Your task to perform on an android device: allow notifications from all sites in the chrome app Image 0: 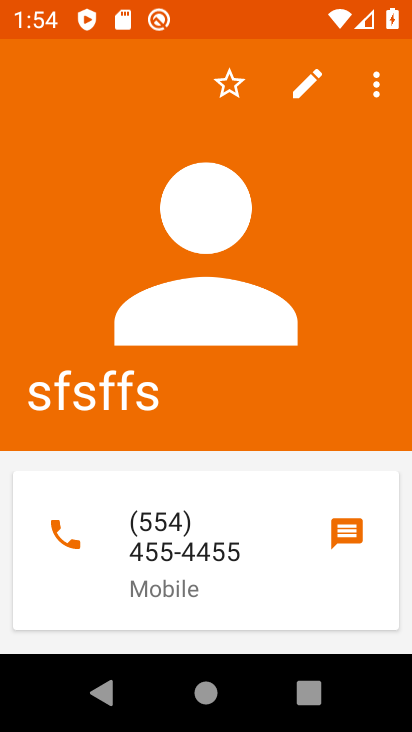
Step 0: press home button
Your task to perform on an android device: allow notifications from all sites in the chrome app Image 1: 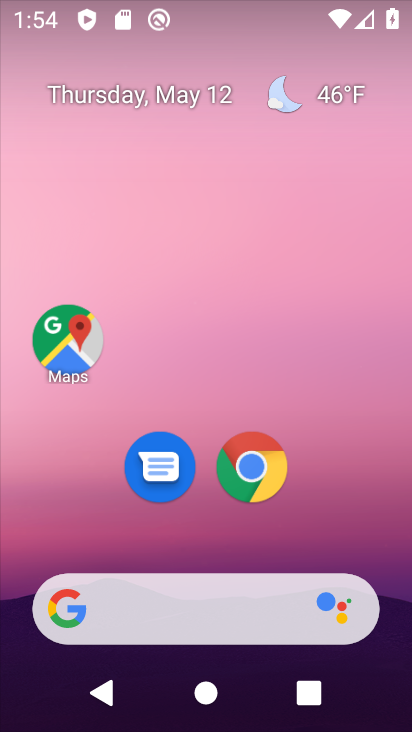
Step 1: click (267, 479)
Your task to perform on an android device: allow notifications from all sites in the chrome app Image 2: 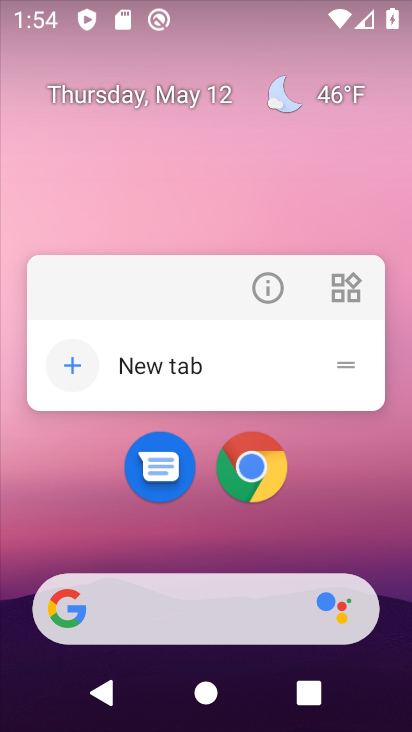
Step 2: click (272, 297)
Your task to perform on an android device: allow notifications from all sites in the chrome app Image 3: 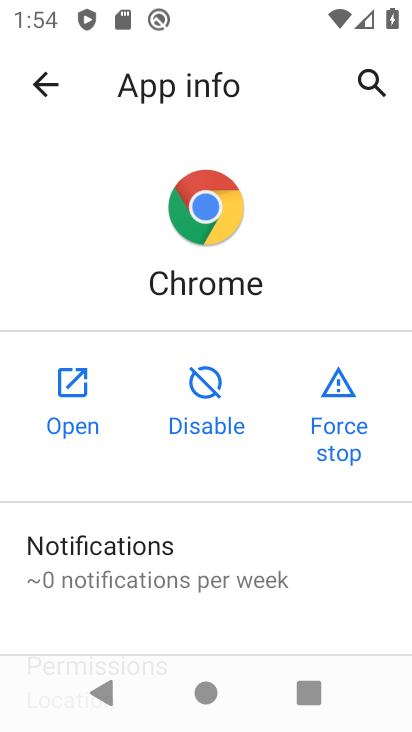
Step 3: click (221, 565)
Your task to perform on an android device: allow notifications from all sites in the chrome app Image 4: 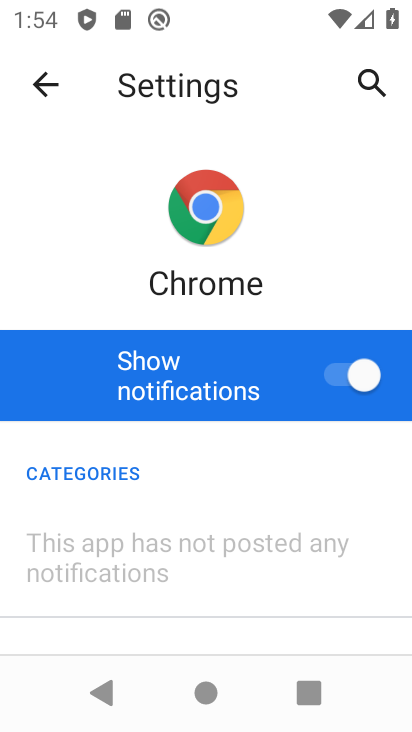
Step 4: drag from (221, 565) to (194, 327)
Your task to perform on an android device: allow notifications from all sites in the chrome app Image 5: 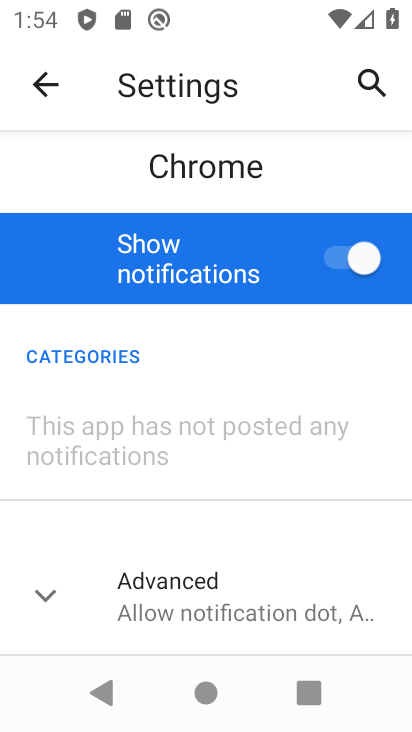
Step 5: drag from (226, 511) to (196, 288)
Your task to perform on an android device: allow notifications from all sites in the chrome app Image 6: 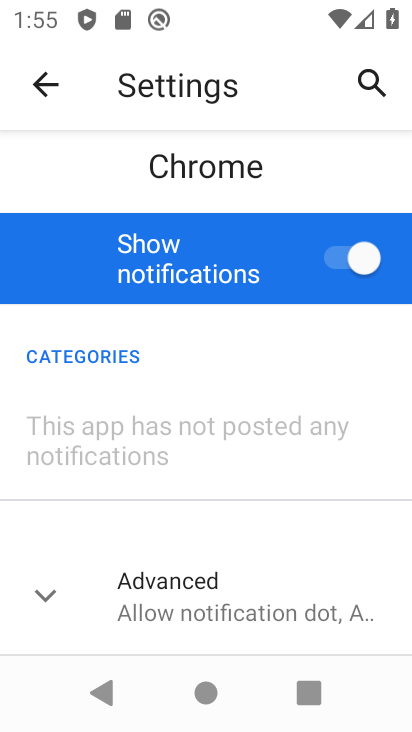
Step 6: click (151, 569)
Your task to perform on an android device: allow notifications from all sites in the chrome app Image 7: 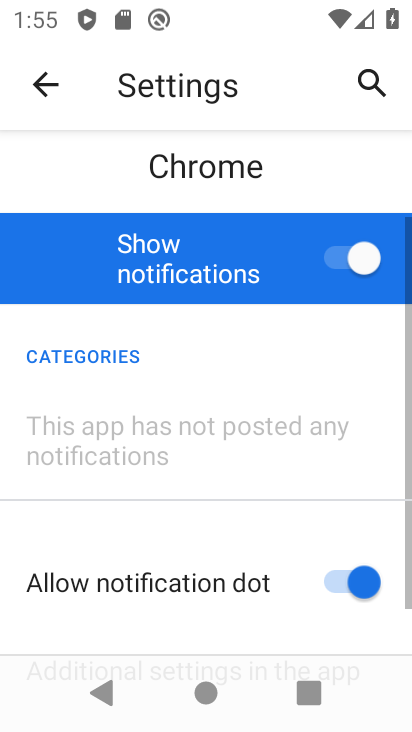
Step 7: task complete